Your task to perform on an android device: check data usage Image 0: 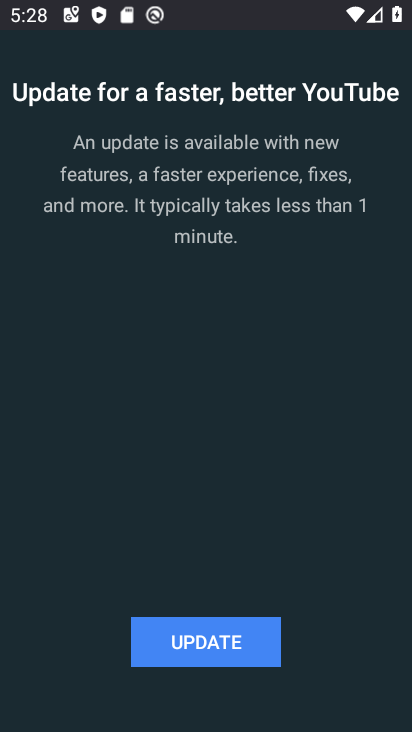
Step 0: drag from (218, 28) to (229, 615)
Your task to perform on an android device: check data usage Image 1: 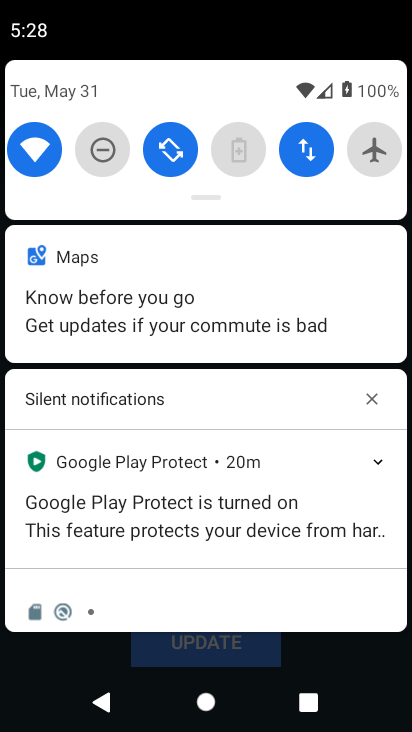
Step 1: click (311, 161)
Your task to perform on an android device: check data usage Image 2: 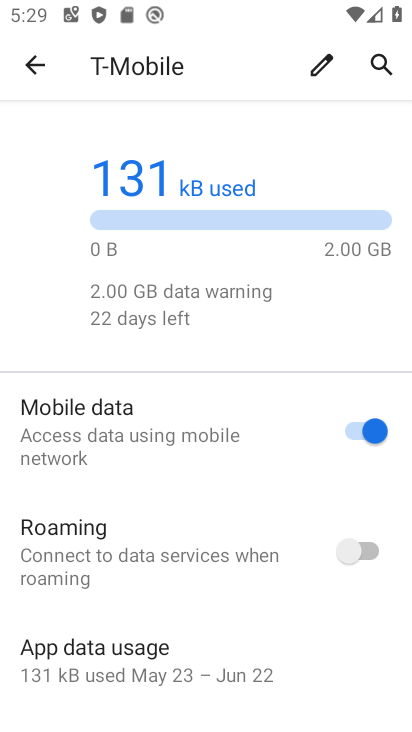
Step 2: task complete